Your task to perform on an android device: Clear the cart on newegg.com. Add "lenovo thinkpad" to the cart on newegg.com, then select checkout. Image 0: 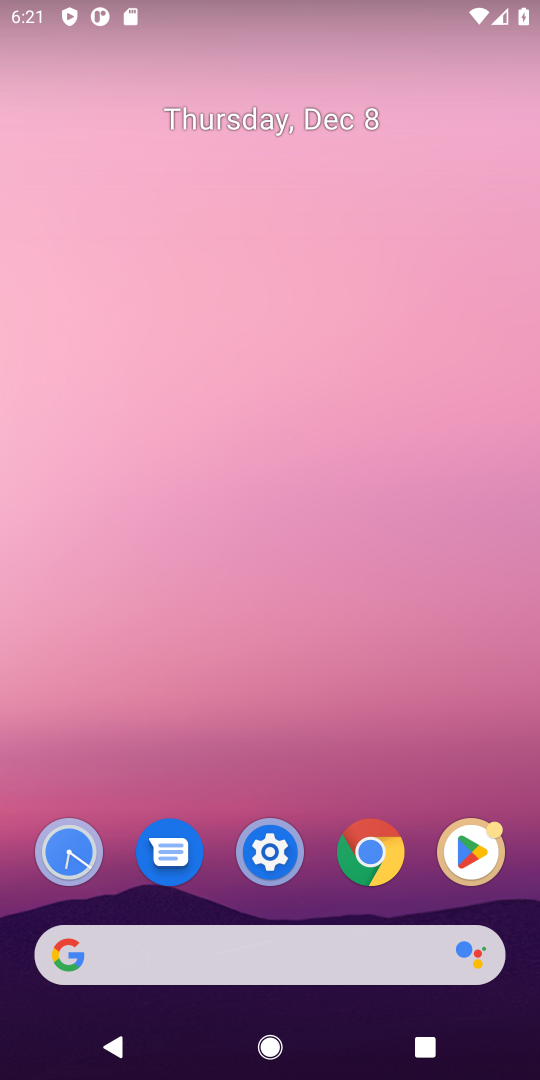
Step 0: type "newegg.com"
Your task to perform on an android device: Clear the cart on newegg.com. Add "lenovo thinkpad" to the cart on newegg.com, then select checkout. Image 1: 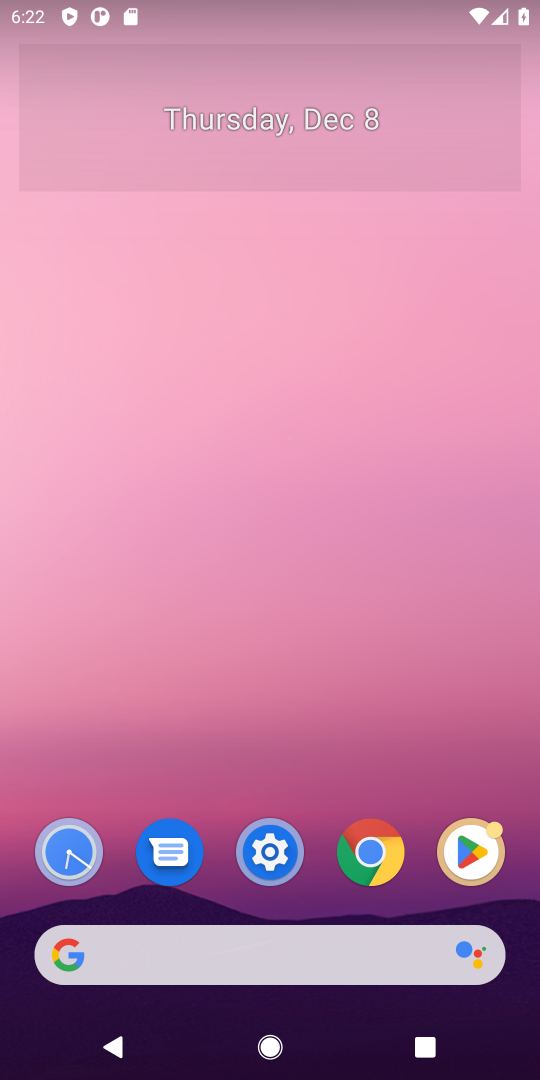
Step 1: click (322, 955)
Your task to perform on an android device: Clear the cart on newegg.com. Add "lenovo thinkpad" to the cart on newegg.com, then select checkout. Image 2: 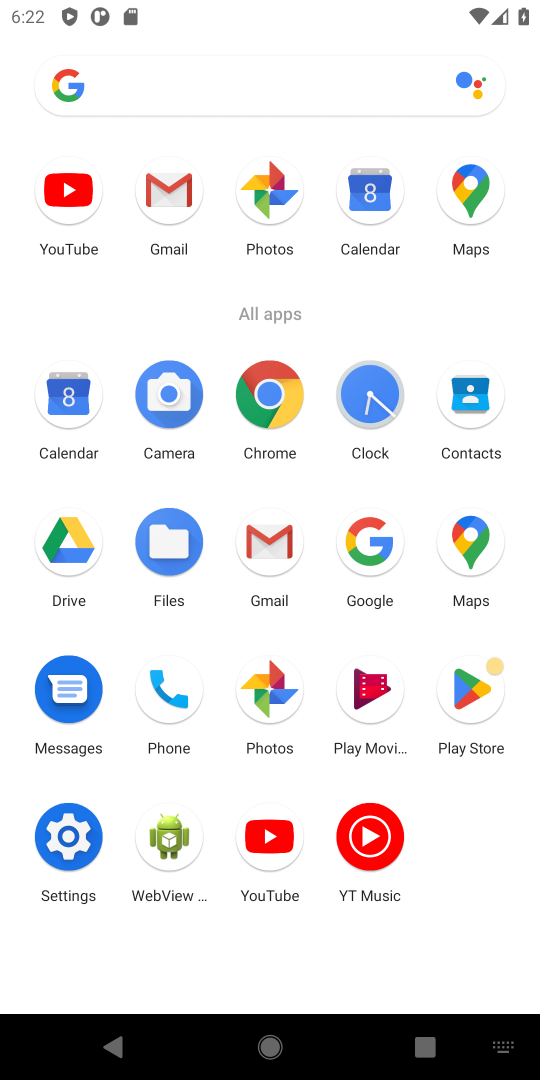
Step 2: type "newegg"
Your task to perform on an android device: Clear the cart on newegg.com. Add "lenovo thinkpad" to the cart on newegg.com, then select checkout. Image 3: 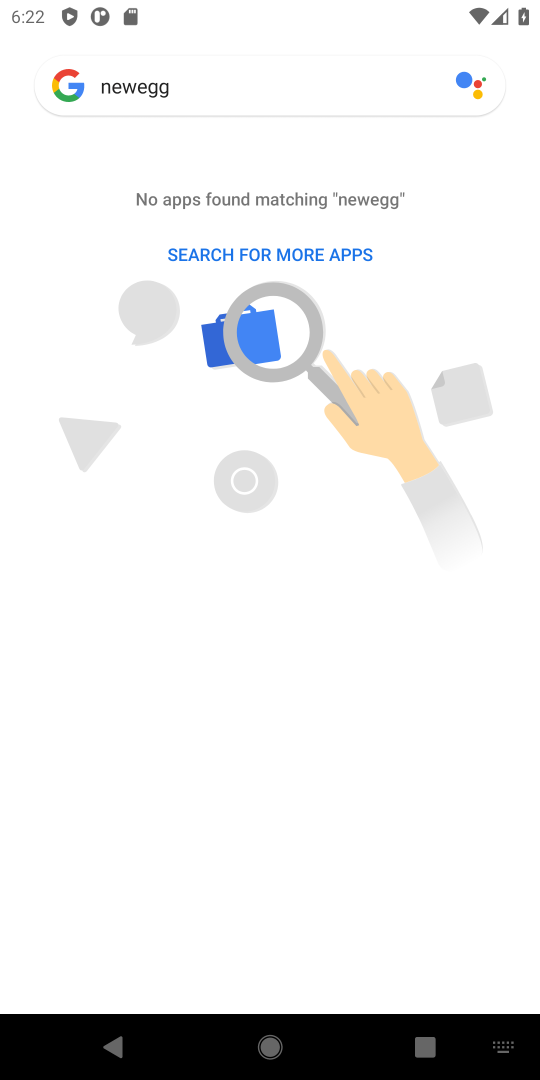
Step 3: press home button
Your task to perform on an android device: Clear the cart on newegg.com. Add "lenovo thinkpad" to the cart on newegg.com, then select checkout. Image 4: 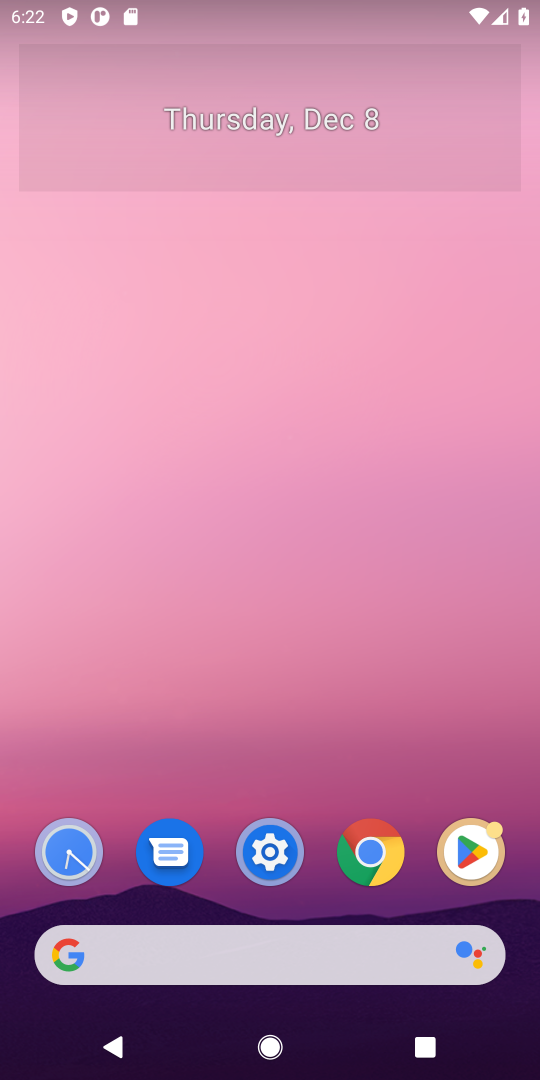
Step 4: click (158, 965)
Your task to perform on an android device: Clear the cart on newegg.com. Add "lenovo thinkpad" to the cart on newegg.com, then select checkout. Image 5: 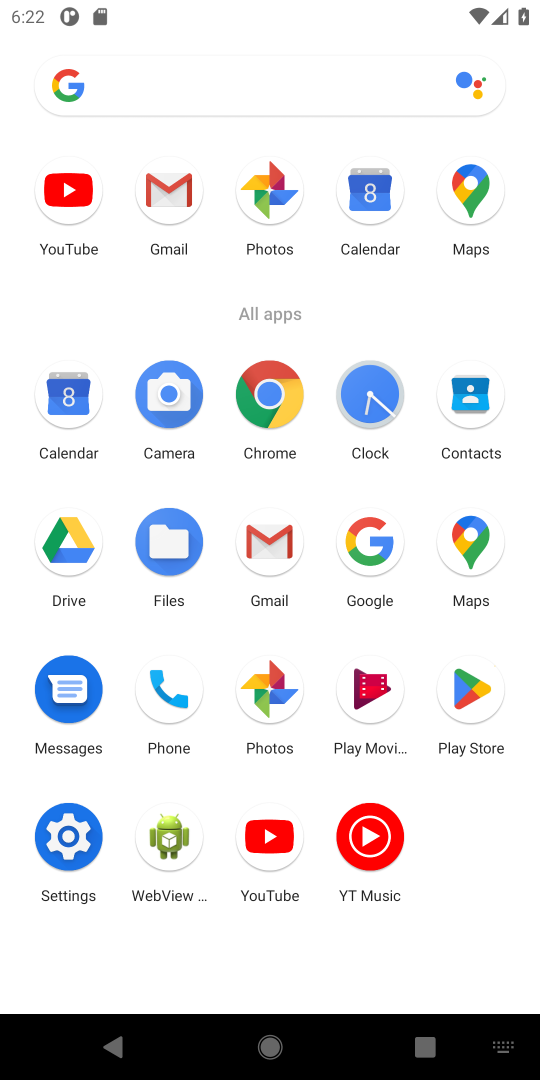
Step 5: click (277, 393)
Your task to perform on an android device: Clear the cart on newegg.com. Add "lenovo thinkpad" to the cart on newegg.com, then select checkout. Image 6: 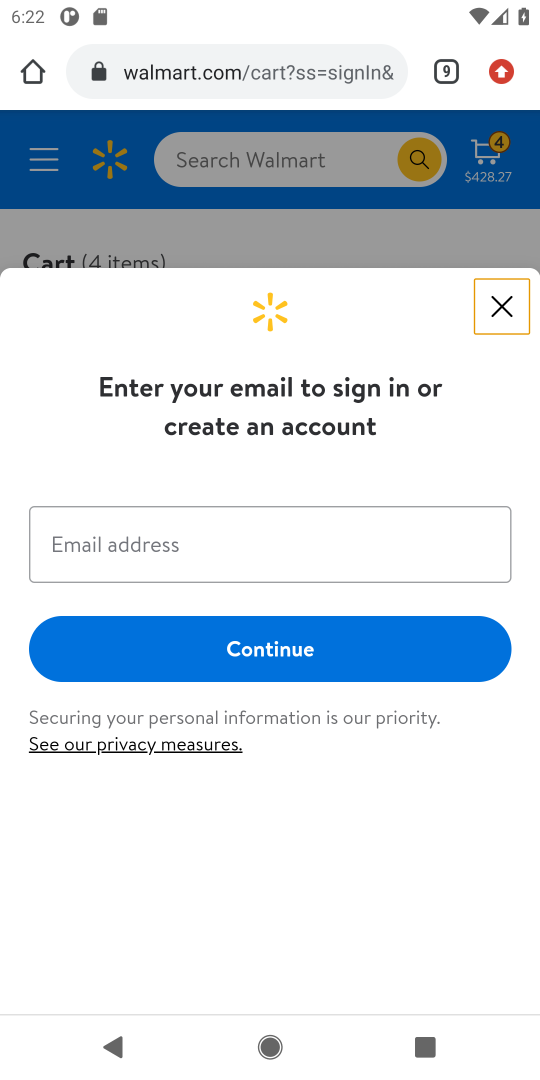
Step 6: click (510, 306)
Your task to perform on an android device: Clear the cart on newegg.com. Add "lenovo thinkpad" to the cart on newegg.com, then select checkout. Image 7: 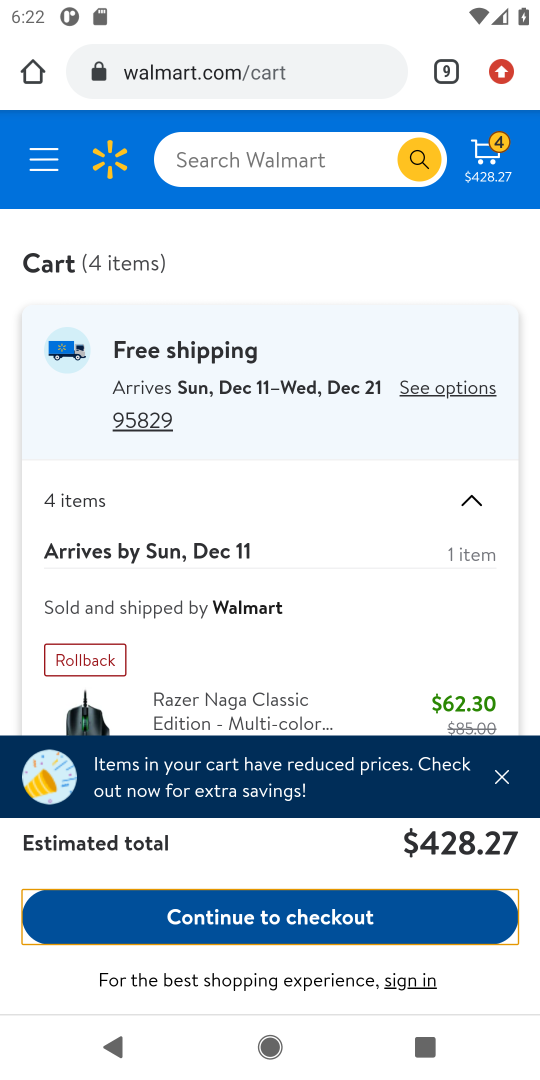
Step 7: click (279, 77)
Your task to perform on an android device: Clear the cart on newegg.com. Add "lenovo thinkpad" to the cart on newegg.com, then select checkout. Image 8: 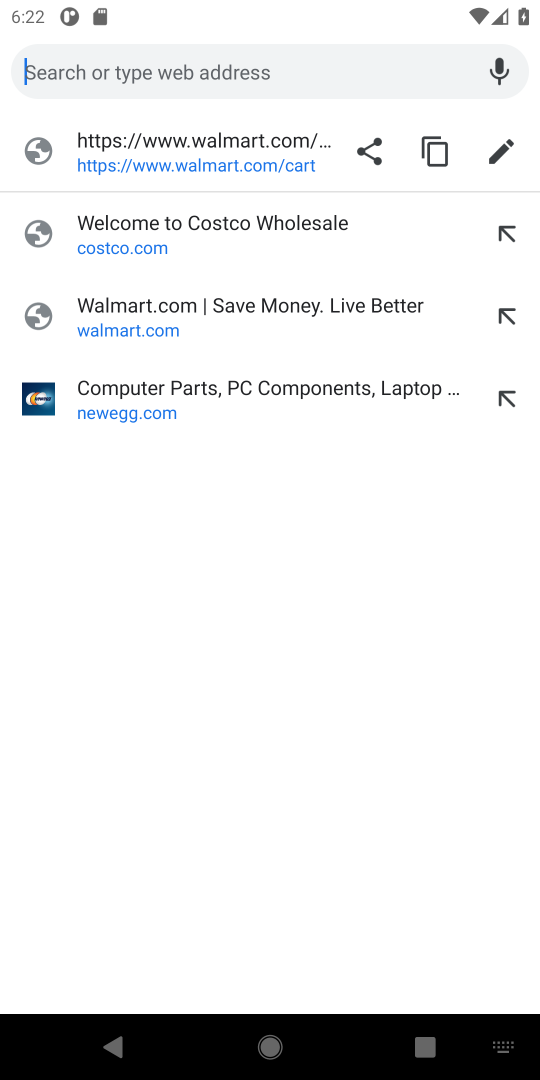
Step 8: type "newegg.com"
Your task to perform on an android device: Clear the cart on newegg.com. Add "lenovo thinkpad" to the cart on newegg.com, then select checkout. Image 9: 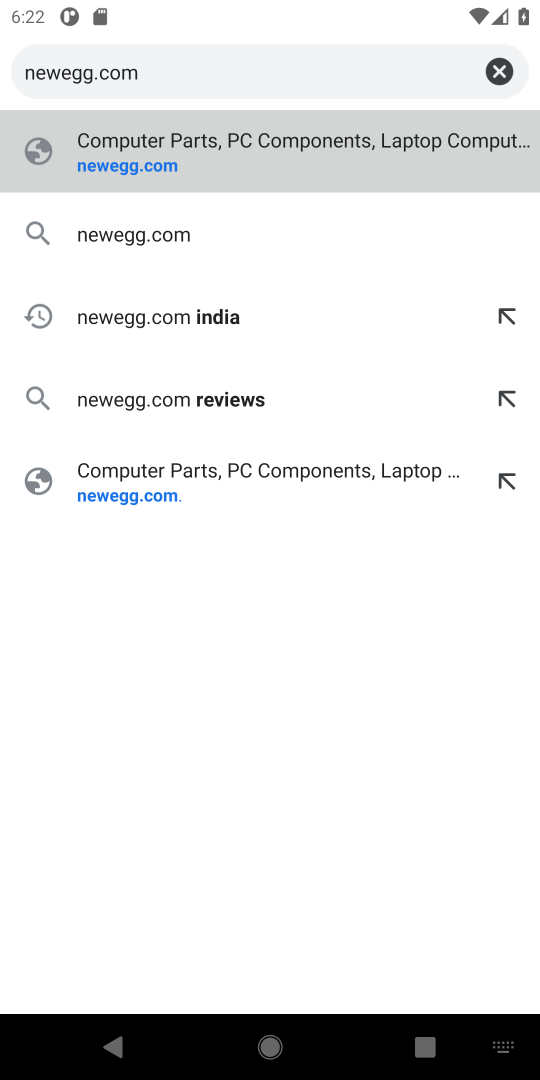
Step 9: click (266, 166)
Your task to perform on an android device: Clear the cart on newegg.com. Add "lenovo thinkpad" to the cart on newegg.com, then select checkout. Image 10: 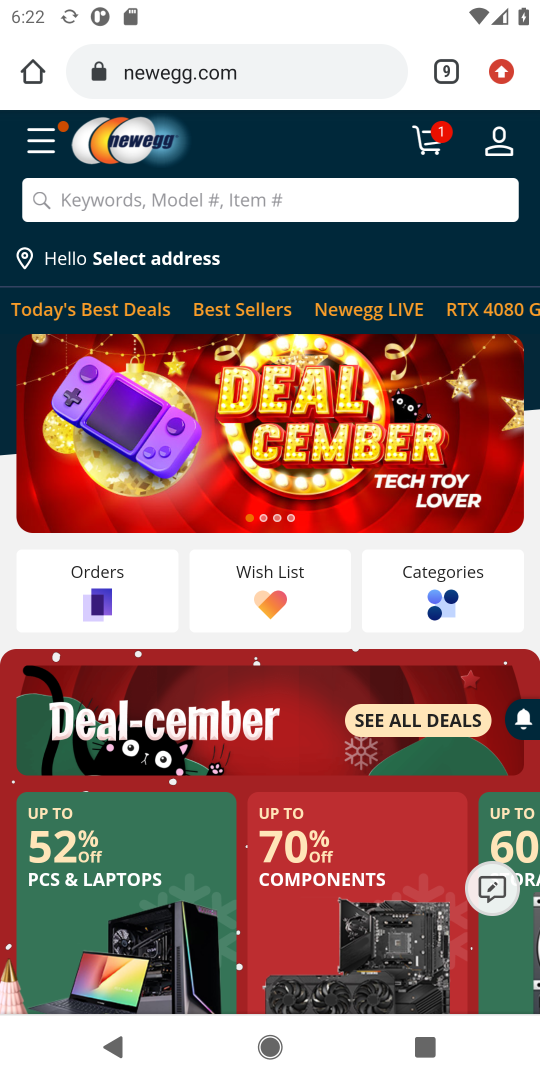
Step 10: click (272, 192)
Your task to perform on an android device: Clear the cart on newegg.com. Add "lenovo thinkpad" to the cart on newegg.com, then select checkout. Image 11: 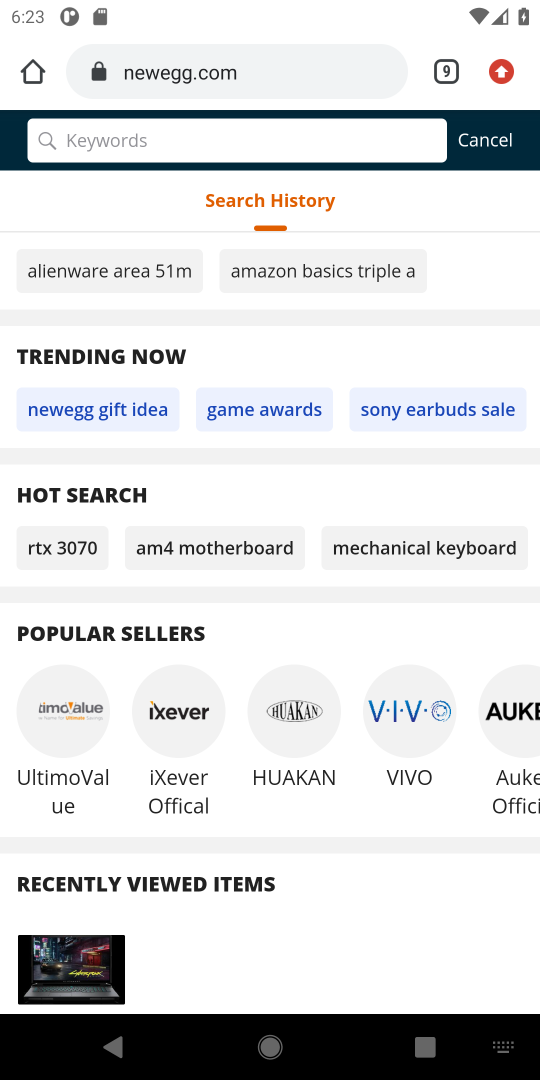
Step 11: type "lenovo thinkpad"
Your task to perform on an android device: Clear the cart on newegg.com. Add "lenovo thinkpad" to the cart on newegg.com, then select checkout. Image 12: 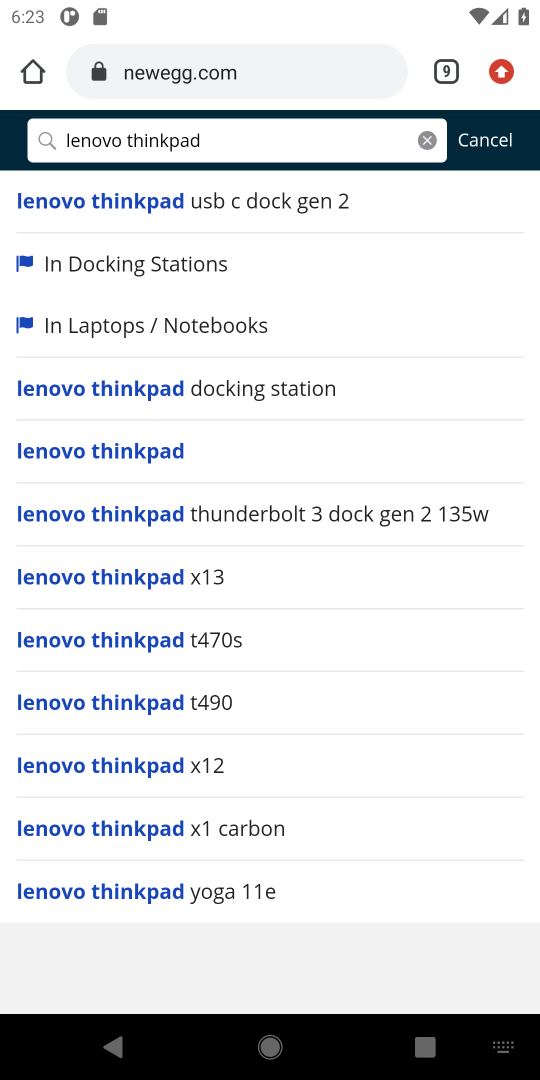
Step 12: click (112, 187)
Your task to perform on an android device: Clear the cart on newegg.com. Add "lenovo thinkpad" to the cart on newegg.com, then select checkout. Image 13: 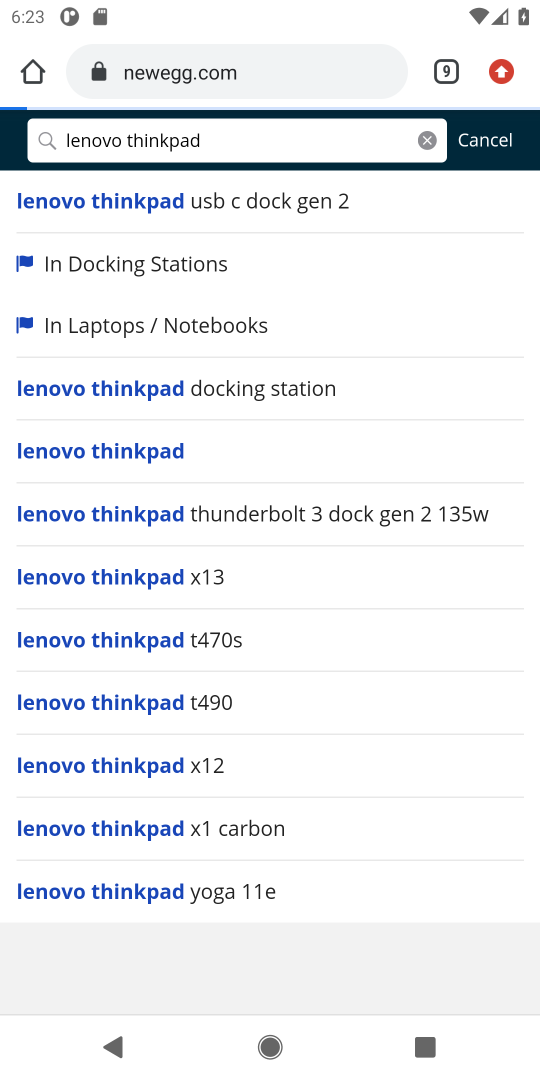
Step 13: click (106, 189)
Your task to perform on an android device: Clear the cart on newegg.com. Add "lenovo thinkpad" to the cart on newegg.com, then select checkout. Image 14: 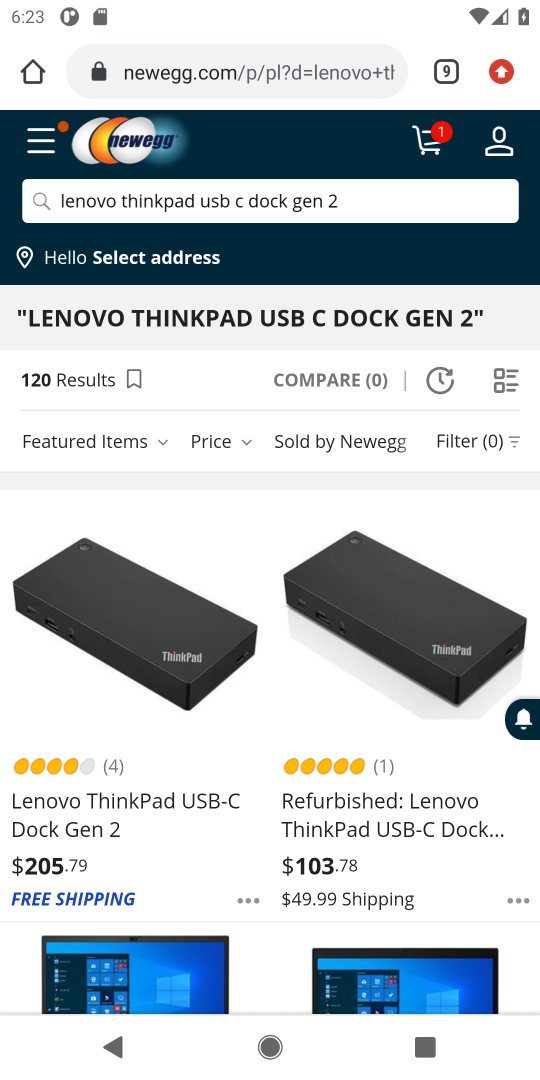
Step 14: click (96, 805)
Your task to perform on an android device: Clear the cart on newegg.com. Add "lenovo thinkpad" to the cart on newegg.com, then select checkout. Image 15: 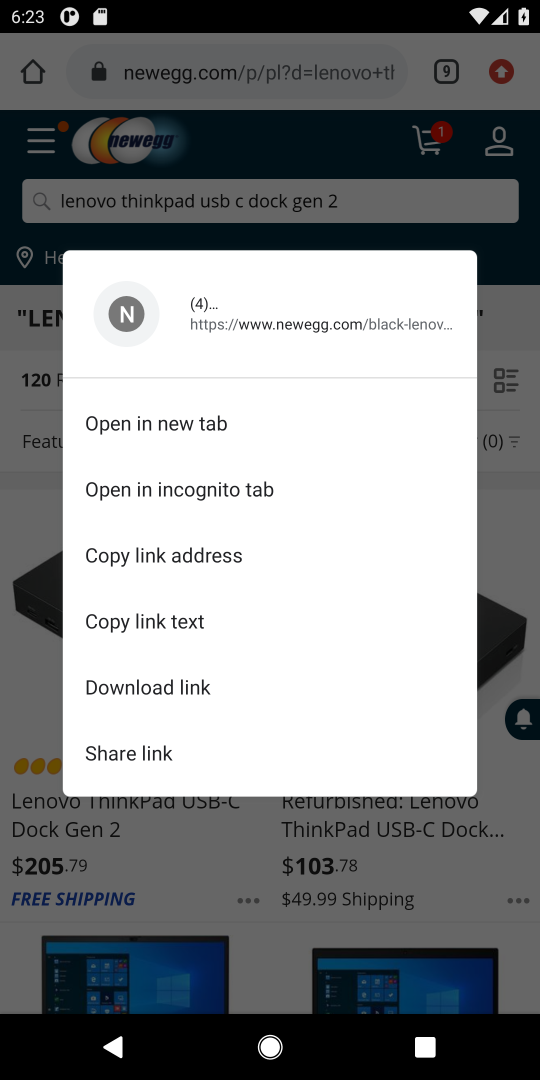
Step 15: click (96, 805)
Your task to perform on an android device: Clear the cart on newegg.com. Add "lenovo thinkpad" to the cart on newegg.com, then select checkout. Image 16: 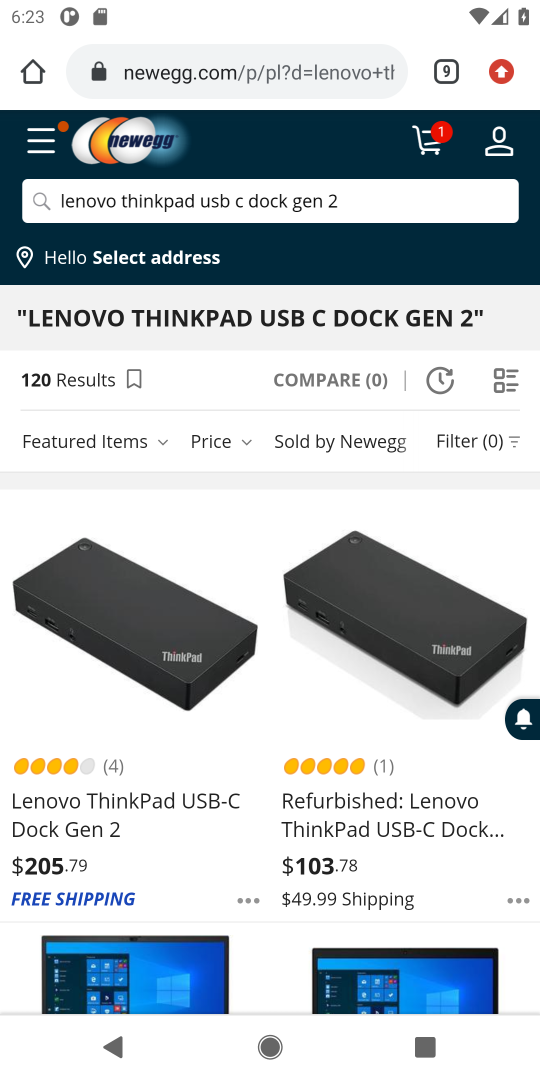
Step 16: click (96, 805)
Your task to perform on an android device: Clear the cart on newegg.com. Add "lenovo thinkpad" to the cart on newegg.com, then select checkout. Image 17: 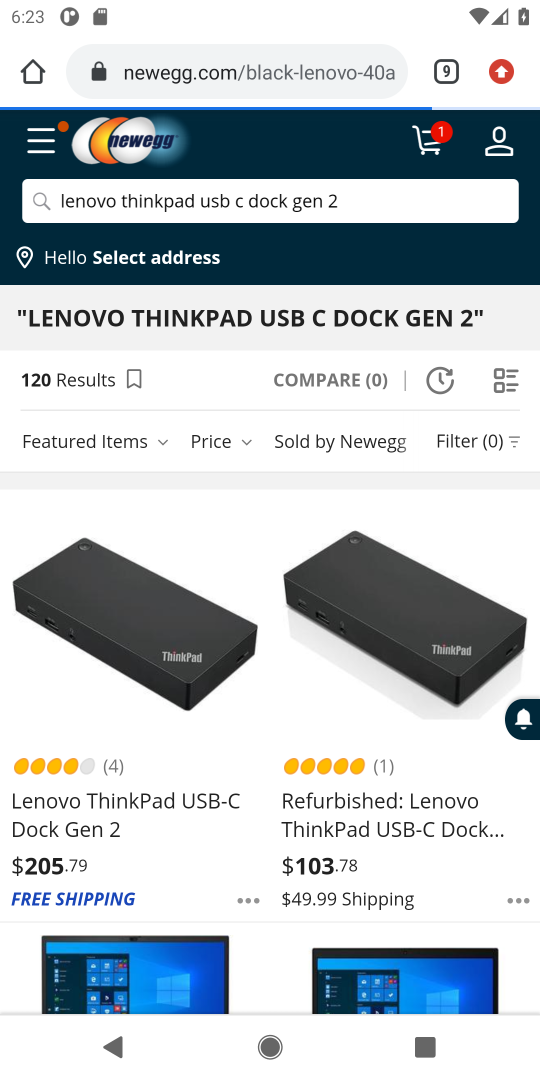
Step 17: click (15, 788)
Your task to perform on an android device: Clear the cart on newegg.com. Add "lenovo thinkpad" to the cart on newegg.com, then select checkout. Image 18: 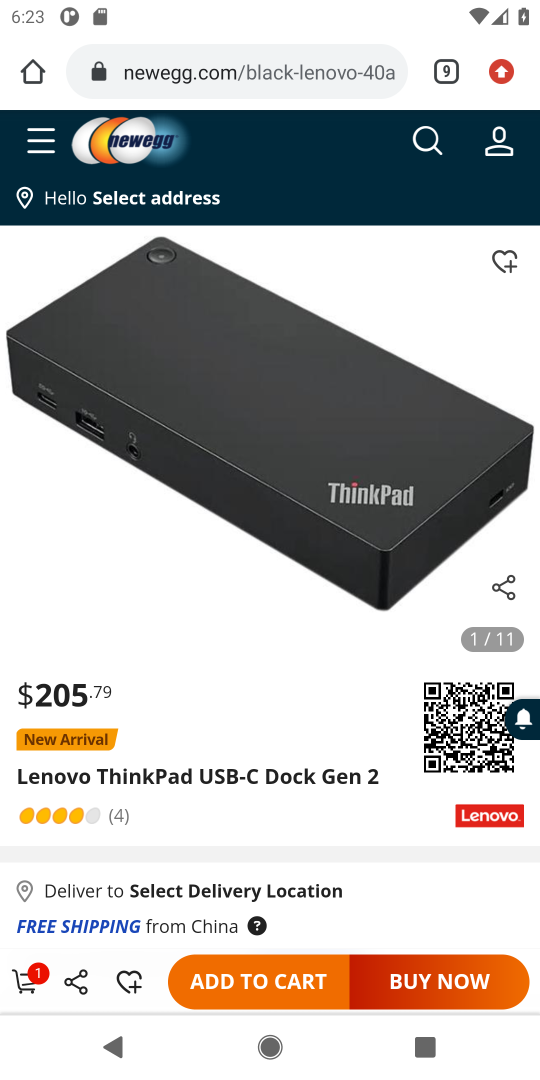
Step 18: click (266, 971)
Your task to perform on an android device: Clear the cart on newegg.com. Add "lenovo thinkpad" to the cart on newegg.com, then select checkout. Image 19: 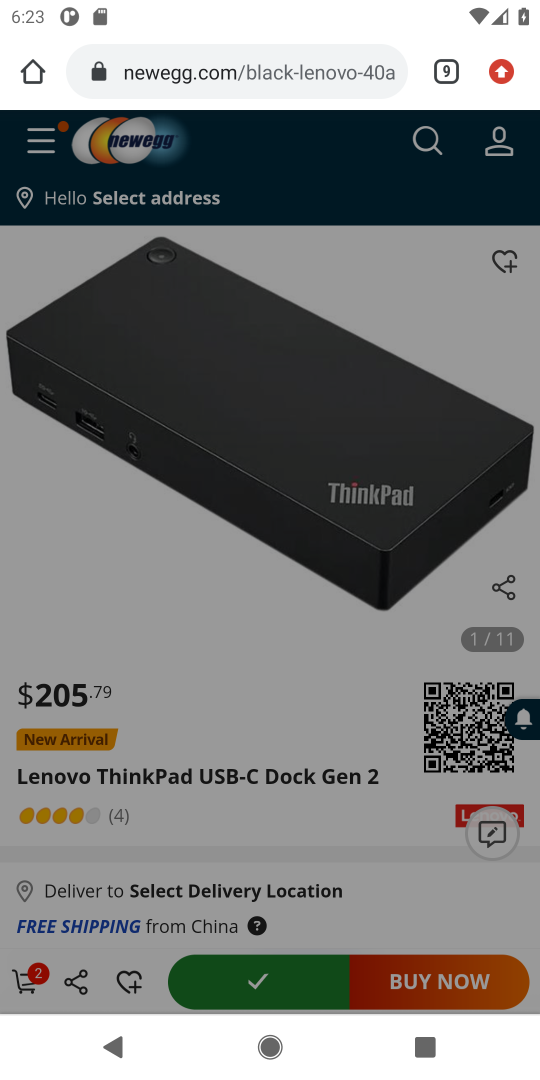
Step 19: task complete